Your task to perform on an android device: Go to Yahoo.com Image 0: 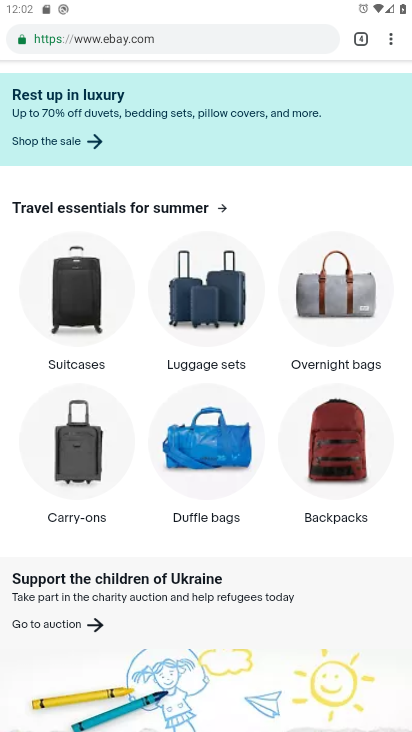
Step 0: click (362, 41)
Your task to perform on an android device: Go to Yahoo.com Image 1: 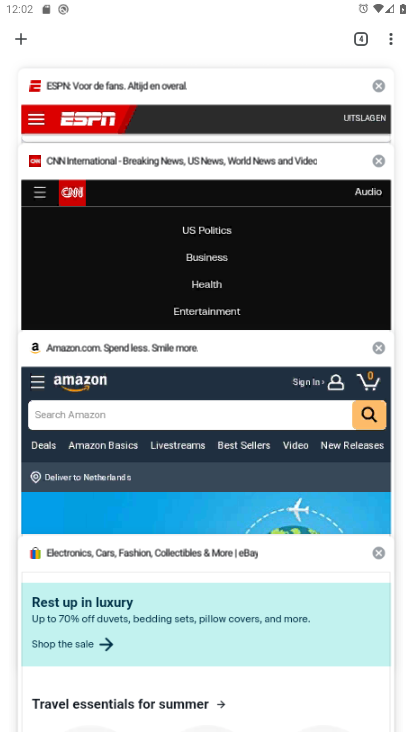
Step 1: click (20, 37)
Your task to perform on an android device: Go to Yahoo.com Image 2: 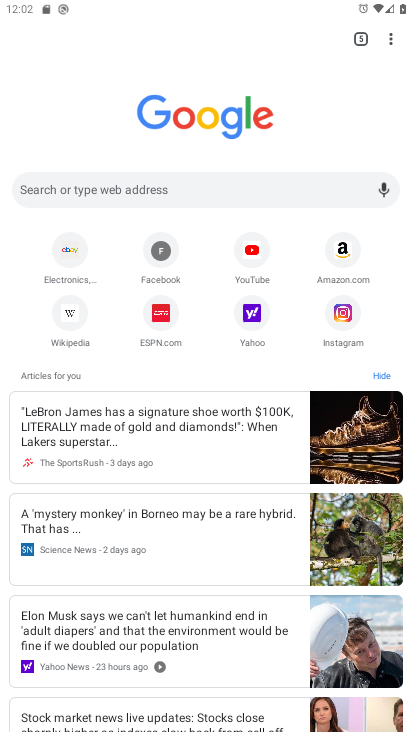
Step 2: click (251, 319)
Your task to perform on an android device: Go to Yahoo.com Image 3: 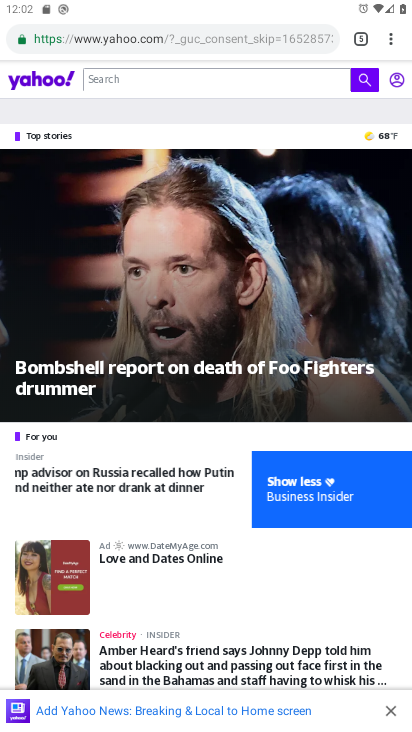
Step 3: task complete